Your task to perform on an android device: turn off javascript in the chrome app Image 0: 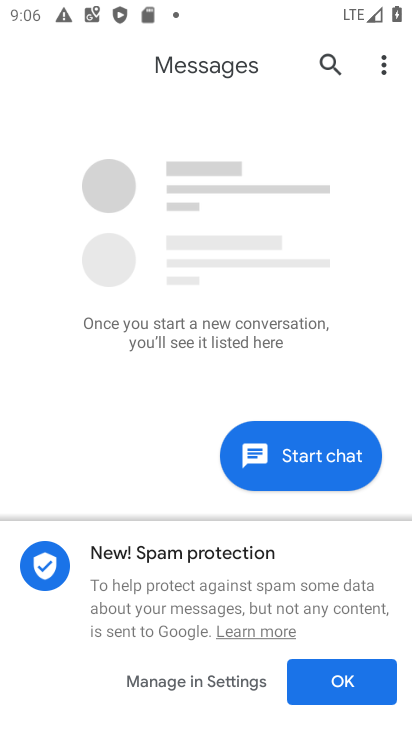
Step 0: press home button
Your task to perform on an android device: turn off javascript in the chrome app Image 1: 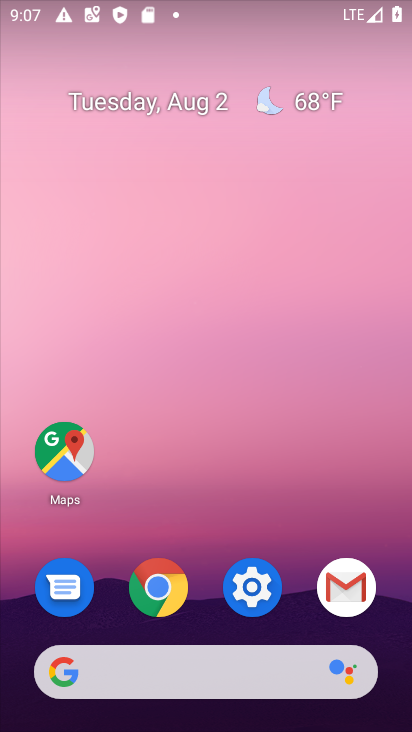
Step 1: click (151, 588)
Your task to perform on an android device: turn off javascript in the chrome app Image 2: 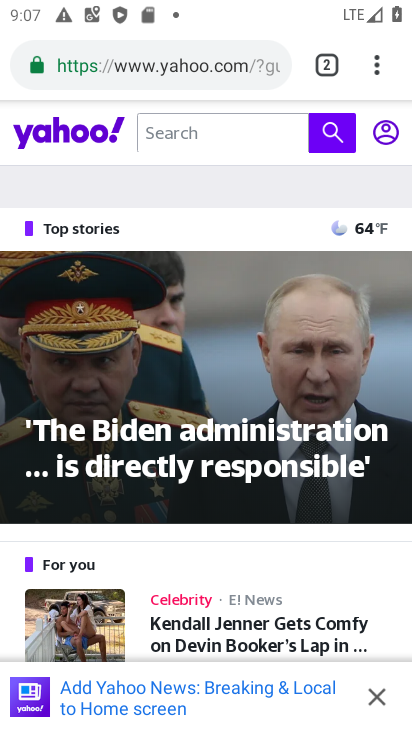
Step 2: click (381, 69)
Your task to perform on an android device: turn off javascript in the chrome app Image 3: 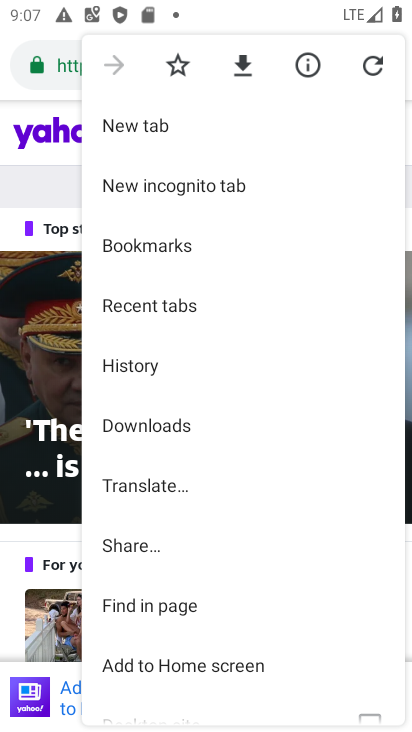
Step 3: drag from (175, 598) to (153, 412)
Your task to perform on an android device: turn off javascript in the chrome app Image 4: 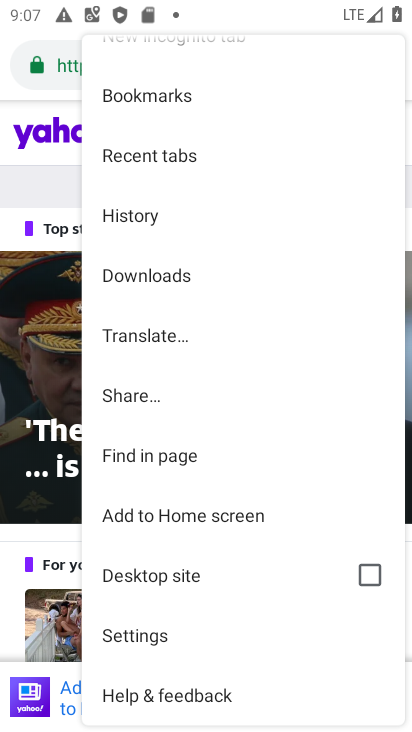
Step 4: click (163, 630)
Your task to perform on an android device: turn off javascript in the chrome app Image 5: 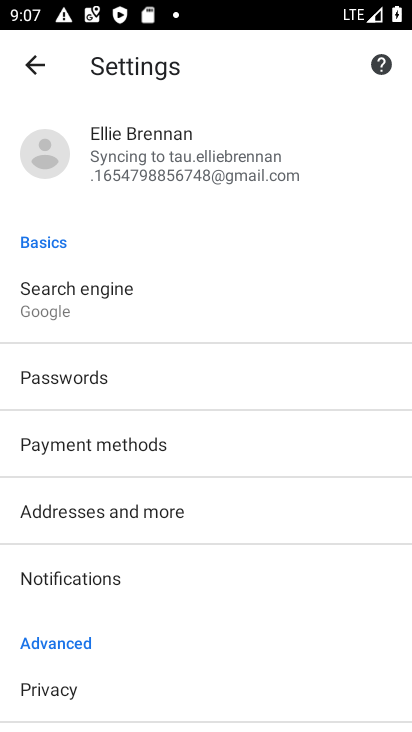
Step 5: drag from (125, 621) to (116, 478)
Your task to perform on an android device: turn off javascript in the chrome app Image 6: 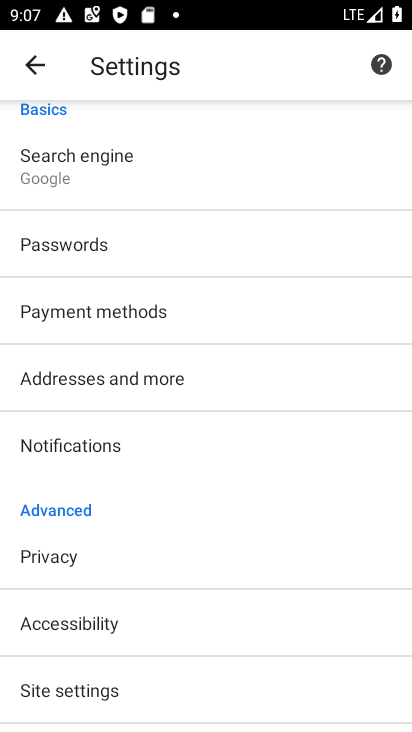
Step 6: click (104, 695)
Your task to perform on an android device: turn off javascript in the chrome app Image 7: 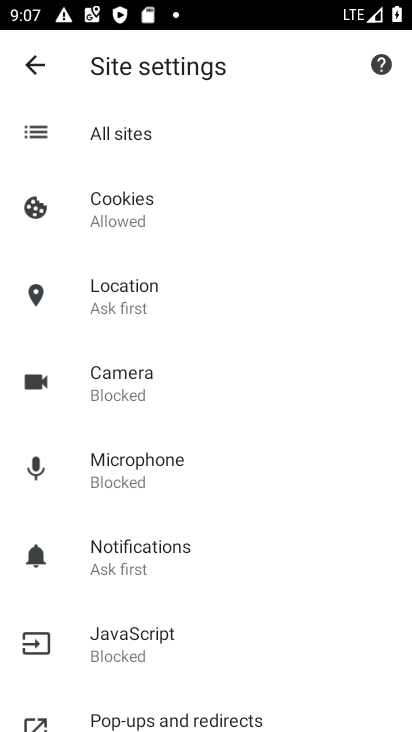
Step 7: click (138, 637)
Your task to perform on an android device: turn off javascript in the chrome app Image 8: 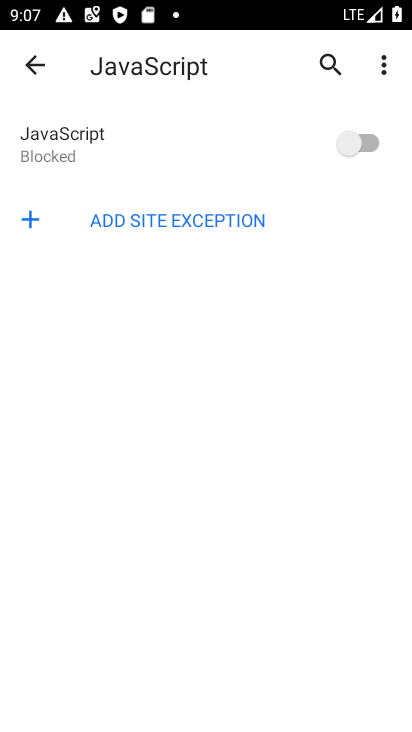
Step 8: click (347, 134)
Your task to perform on an android device: turn off javascript in the chrome app Image 9: 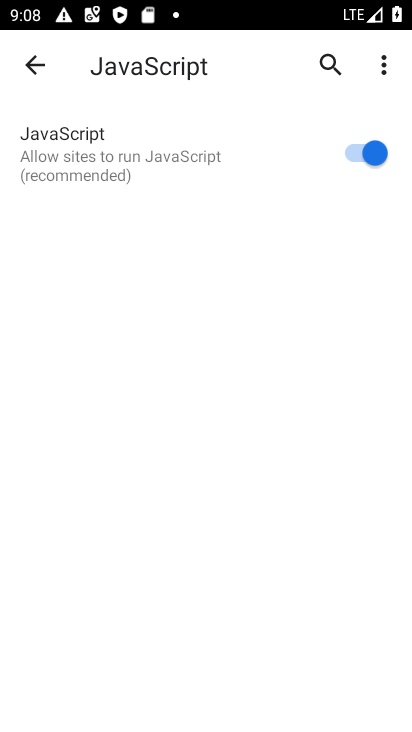
Step 9: task complete